Your task to perform on an android device: Go to privacy settings Image 0: 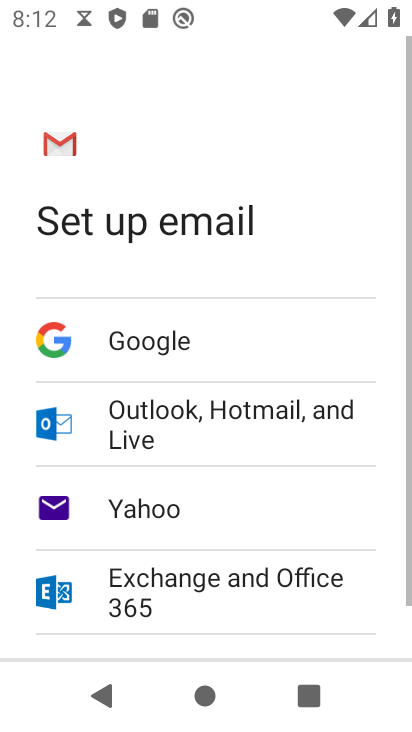
Step 0: press home button
Your task to perform on an android device: Go to privacy settings Image 1: 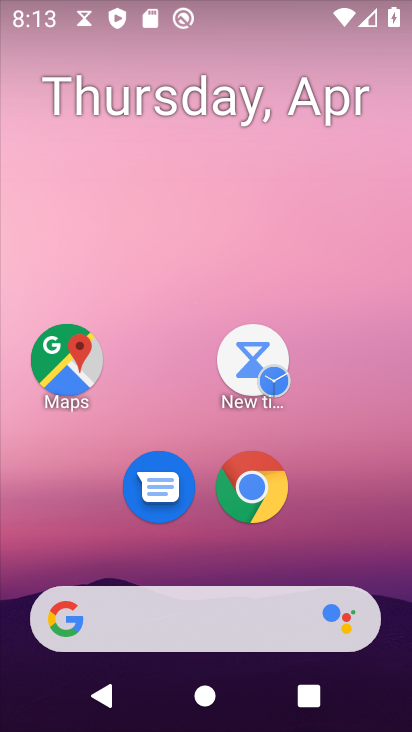
Step 1: click (260, 491)
Your task to perform on an android device: Go to privacy settings Image 2: 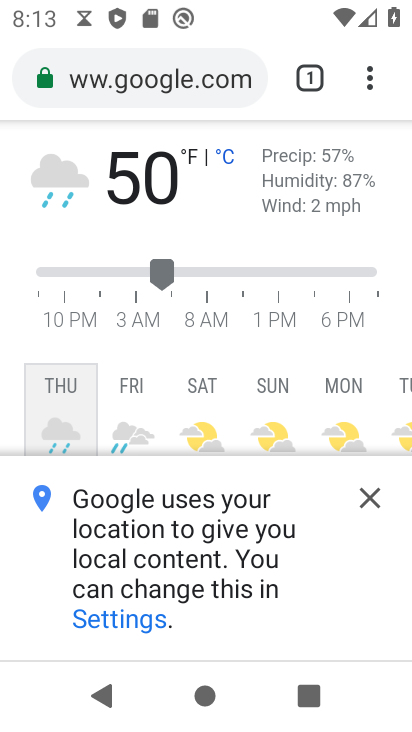
Step 2: drag from (371, 81) to (180, 551)
Your task to perform on an android device: Go to privacy settings Image 3: 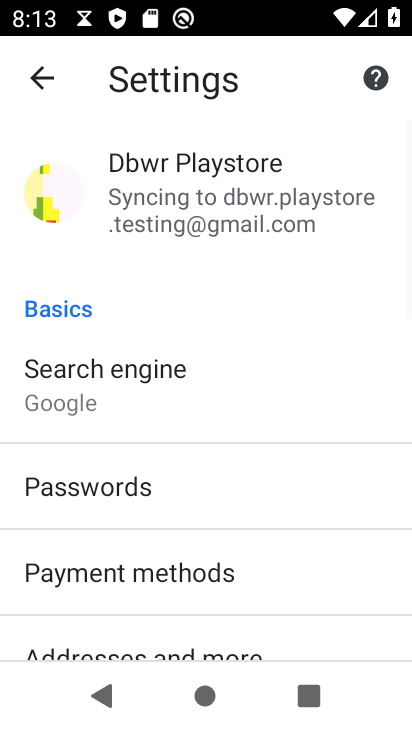
Step 3: drag from (297, 589) to (269, 237)
Your task to perform on an android device: Go to privacy settings Image 4: 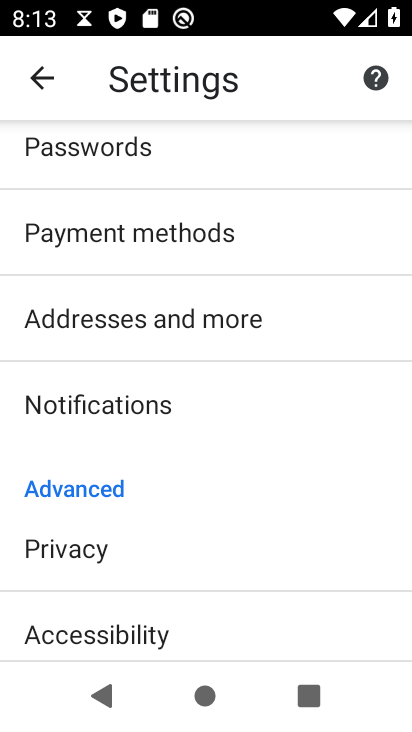
Step 4: click (73, 551)
Your task to perform on an android device: Go to privacy settings Image 5: 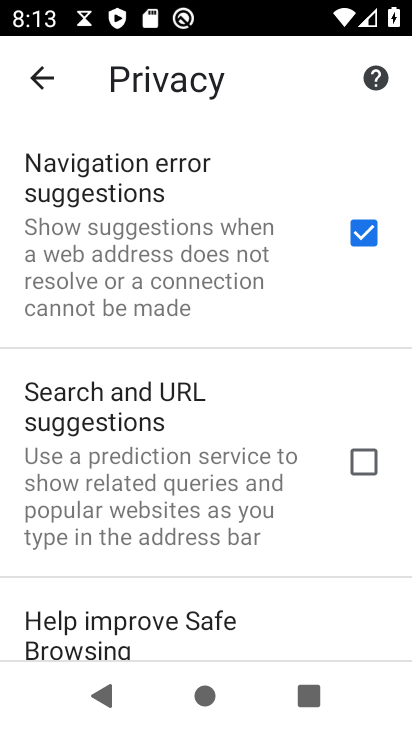
Step 5: task complete